Your task to perform on an android device: Open display settings Image 0: 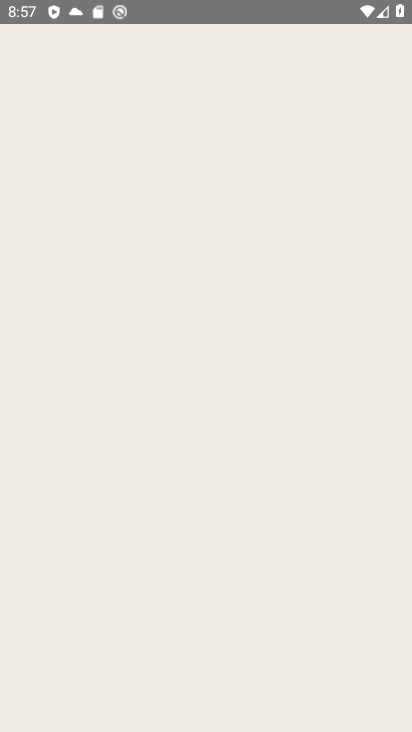
Step 0: press home button
Your task to perform on an android device: Open display settings Image 1: 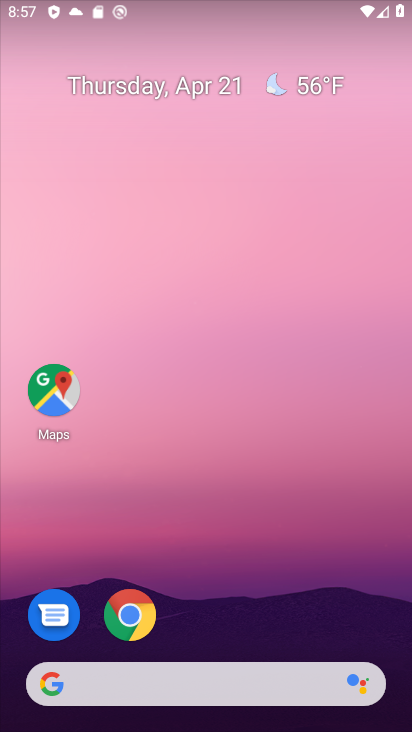
Step 1: drag from (228, 602) to (247, 93)
Your task to perform on an android device: Open display settings Image 2: 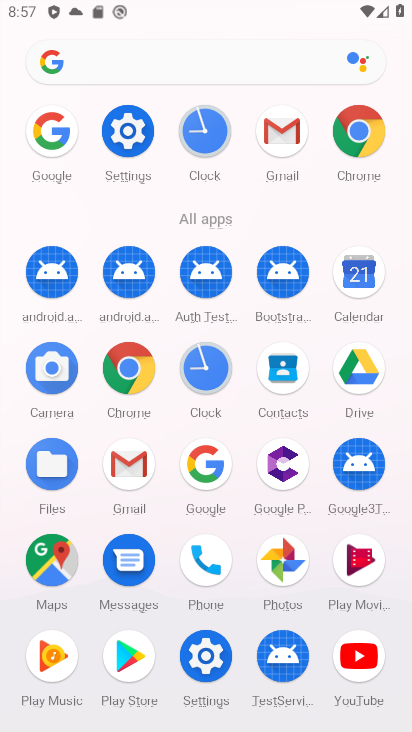
Step 2: click (126, 135)
Your task to perform on an android device: Open display settings Image 3: 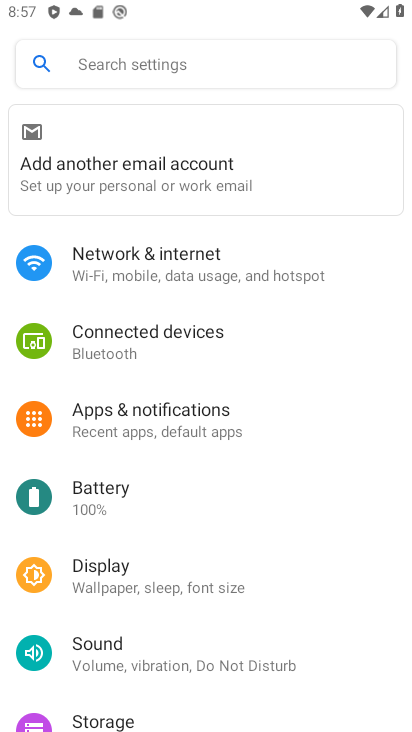
Step 3: click (137, 585)
Your task to perform on an android device: Open display settings Image 4: 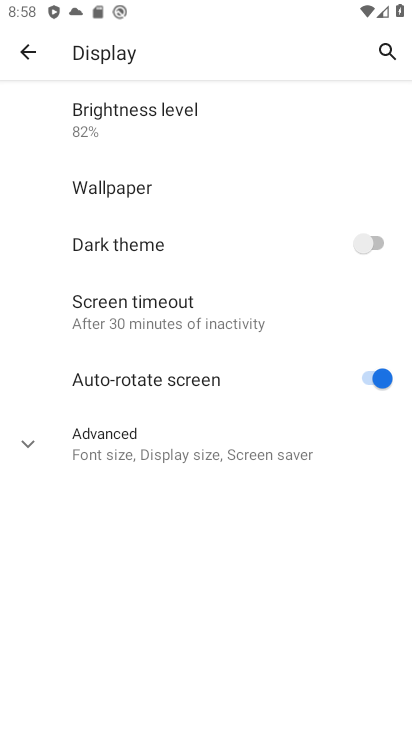
Step 4: task complete